Your task to perform on an android device: Is it going to rain this weekend? Image 0: 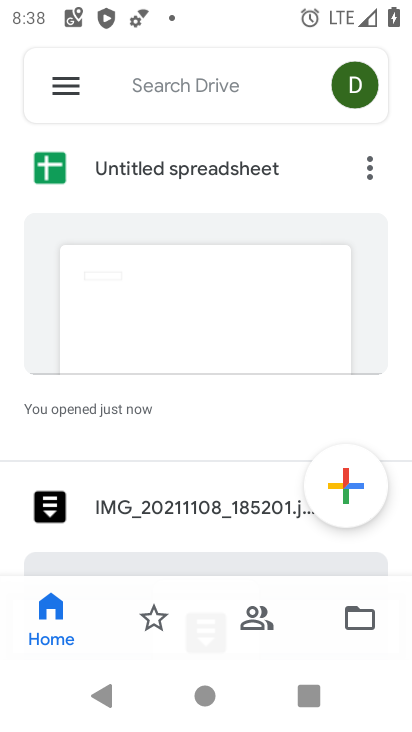
Step 0: press home button
Your task to perform on an android device: Is it going to rain this weekend? Image 1: 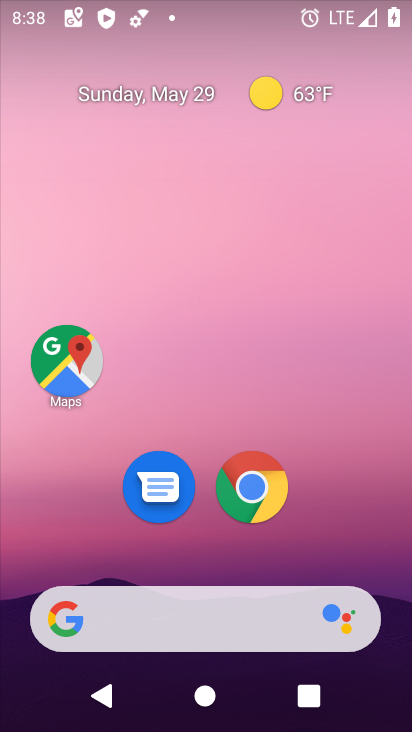
Step 1: drag from (219, 636) to (292, 174)
Your task to perform on an android device: Is it going to rain this weekend? Image 2: 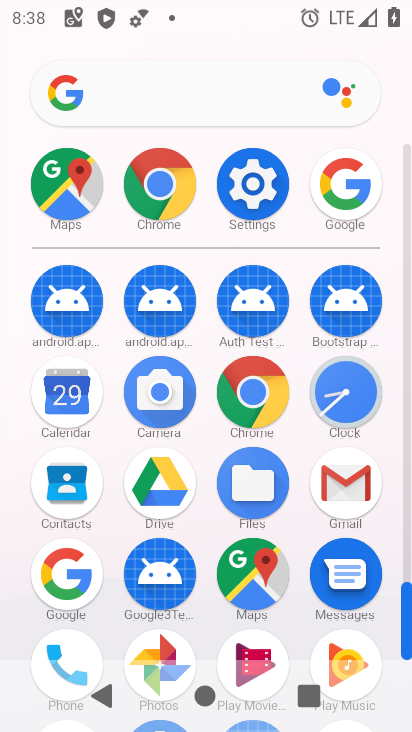
Step 2: drag from (210, 458) to (283, 168)
Your task to perform on an android device: Is it going to rain this weekend? Image 3: 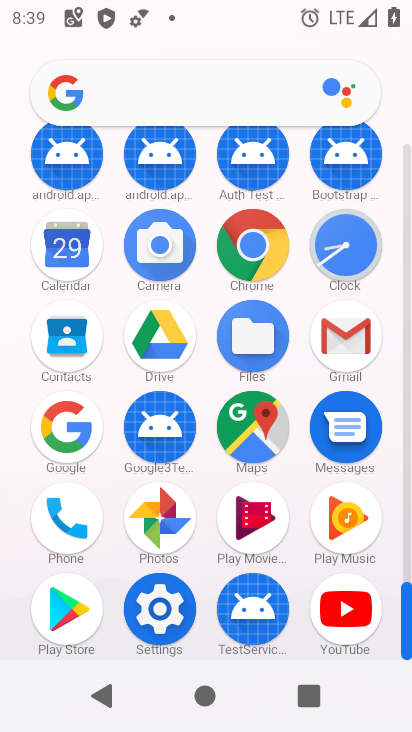
Step 3: click (79, 455)
Your task to perform on an android device: Is it going to rain this weekend? Image 4: 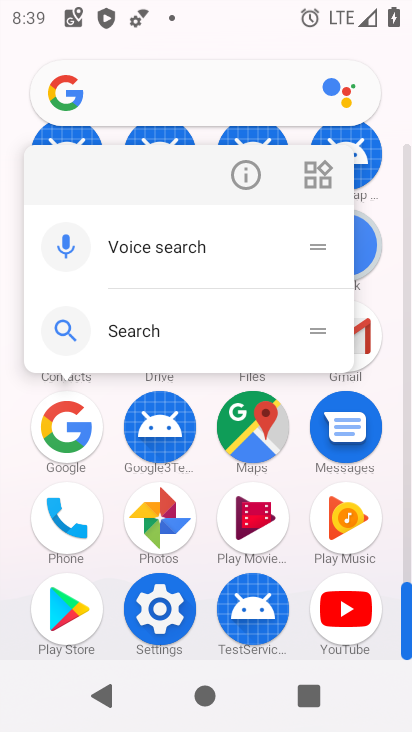
Step 4: click (76, 445)
Your task to perform on an android device: Is it going to rain this weekend? Image 5: 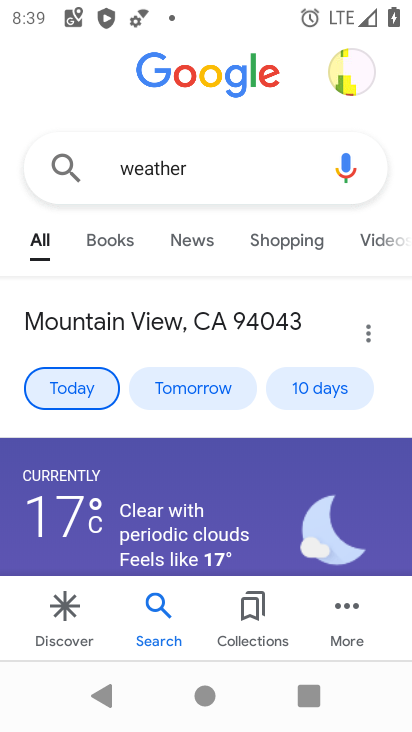
Step 5: click (264, 175)
Your task to perform on an android device: Is it going to rain this weekend? Image 6: 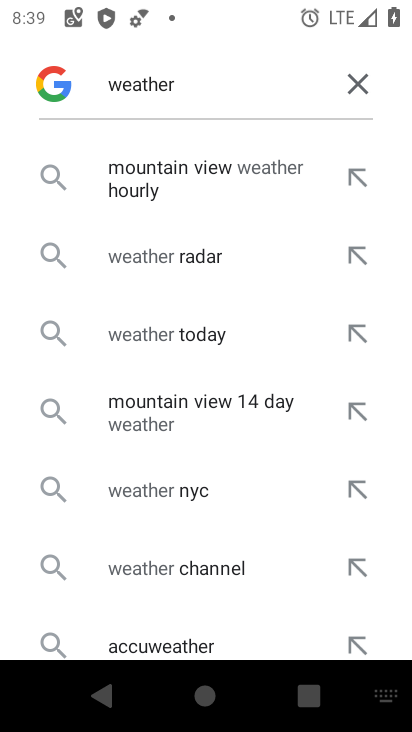
Step 6: click (214, 335)
Your task to perform on an android device: Is it going to rain this weekend? Image 7: 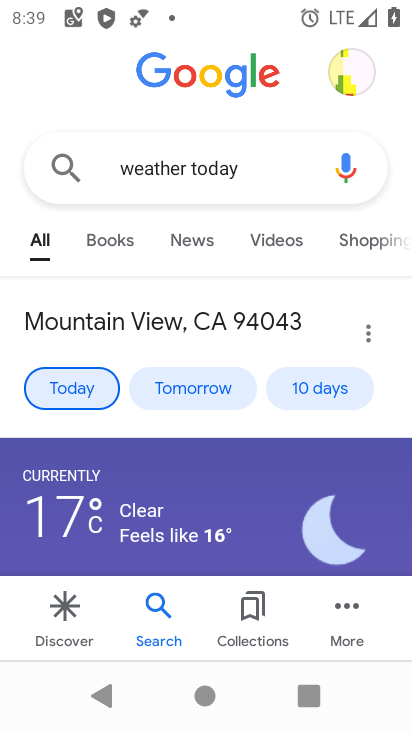
Step 7: click (335, 394)
Your task to perform on an android device: Is it going to rain this weekend? Image 8: 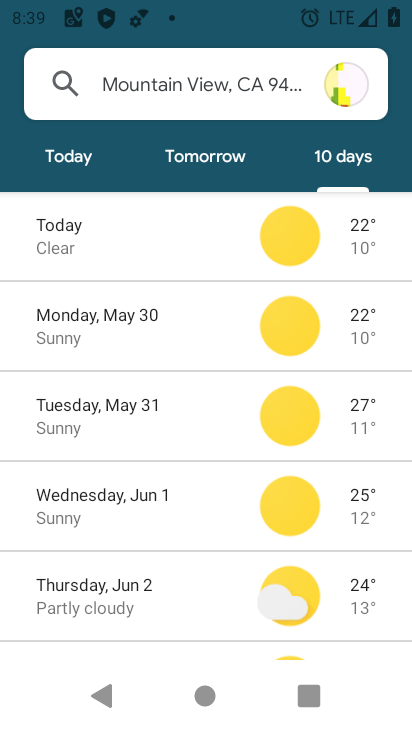
Step 8: task complete